Your task to perform on an android device: Open Reddit.com Image 0: 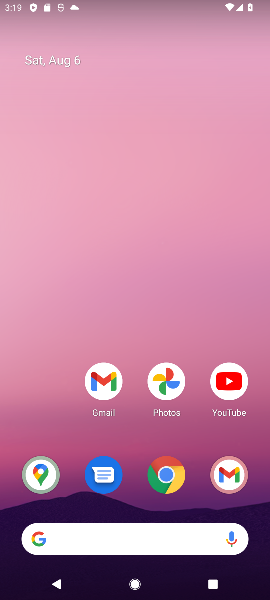
Step 0: click (78, 537)
Your task to perform on an android device: Open Reddit.com Image 1: 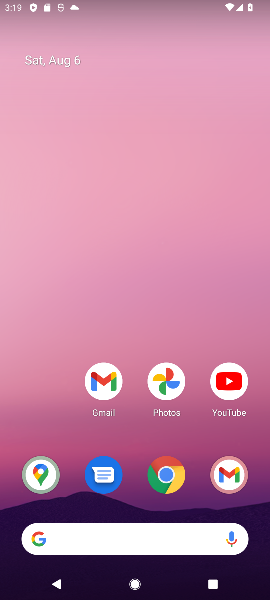
Step 1: click (82, 545)
Your task to perform on an android device: Open Reddit.com Image 2: 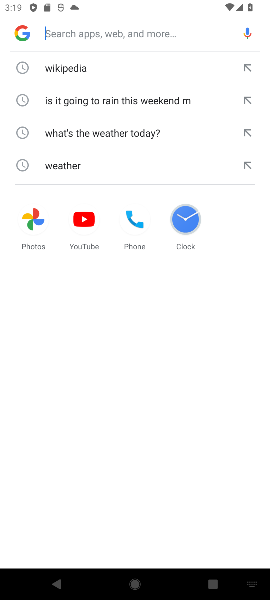
Step 2: type "Reddit.com"
Your task to perform on an android device: Open Reddit.com Image 3: 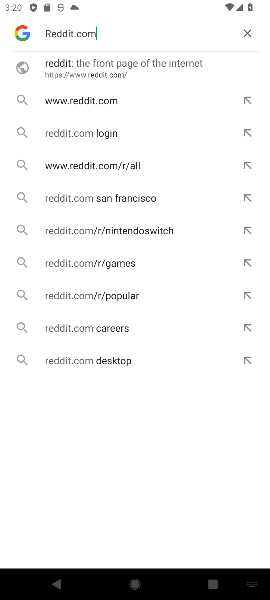
Step 3: click (67, 105)
Your task to perform on an android device: Open Reddit.com Image 4: 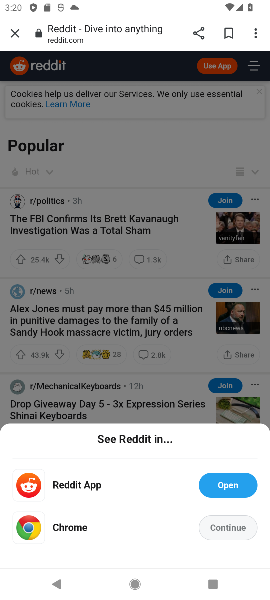
Step 4: task complete